Your task to perform on an android device: change notification settings in the gmail app Image 0: 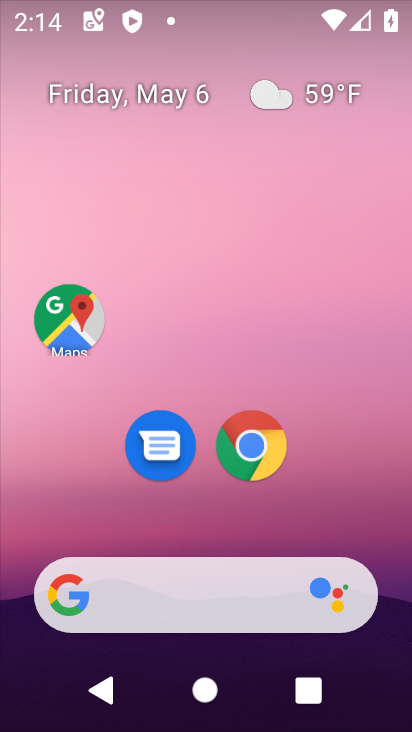
Step 0: drag from (371, 541) to (44, 170)
Your task to perform on an android device: change notification settings in the gmail app Image 1: 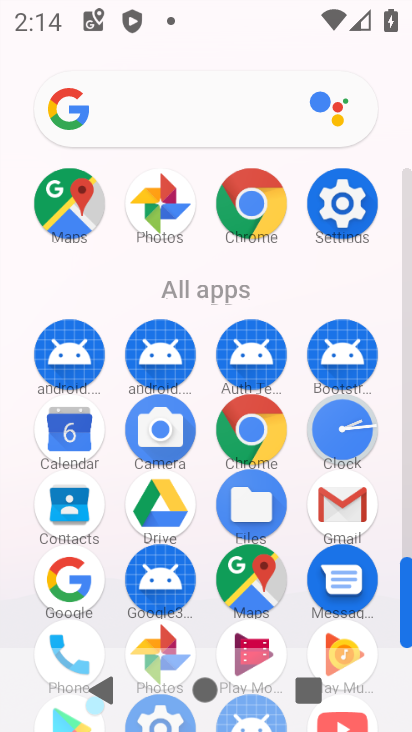
Step 1: click (340, 481)
Your task to perform on an android device: change notification settings in the gmail app Image 2: 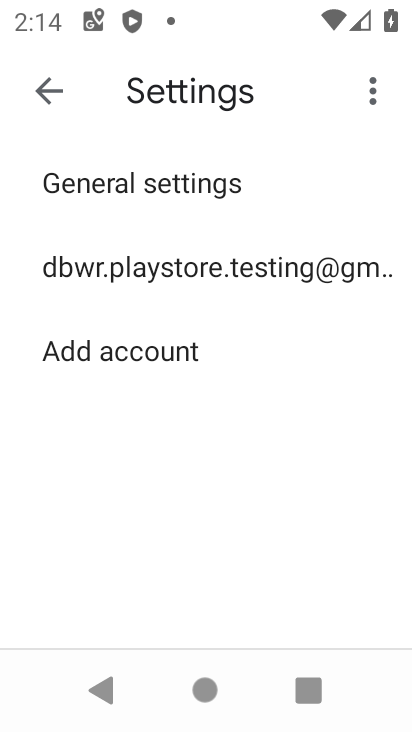
Step 2: click (137, 274)
Your task to perform on an android device: change notification settings in the gmail app Image 3: 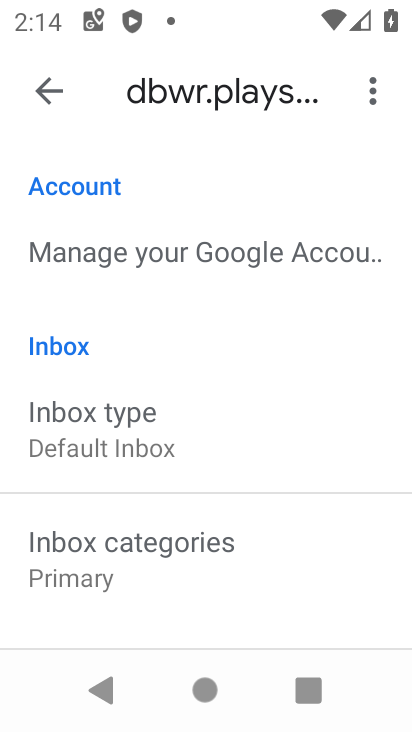
Step 3: drag from (148, 556) to (195, 117)
Your task to perform on an android device: change notification settings in the gmail app Image 4: 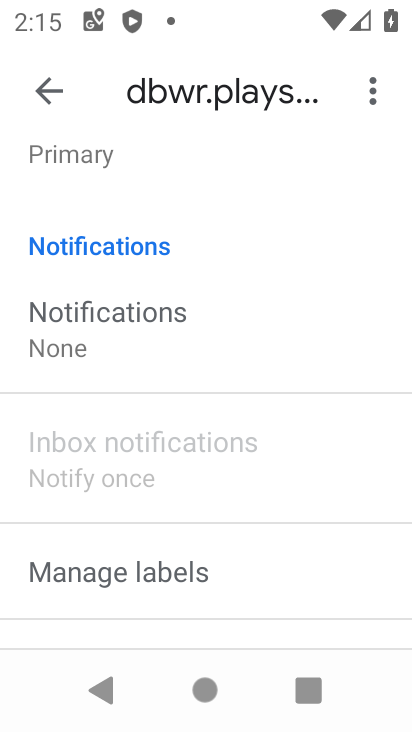
Step 4: click (128, 314)
Your task to perform on an android device: change notification settings in the gmail app Image 5: 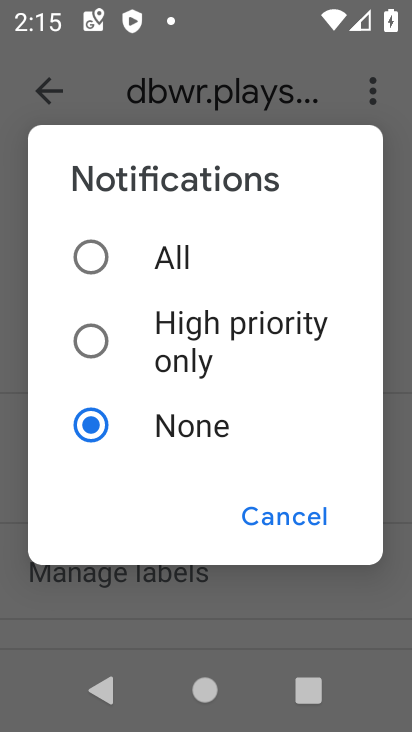
Step 5: click (87, 341)
Your task to perform on an android device: change notification settings in the gmail app Image 6: 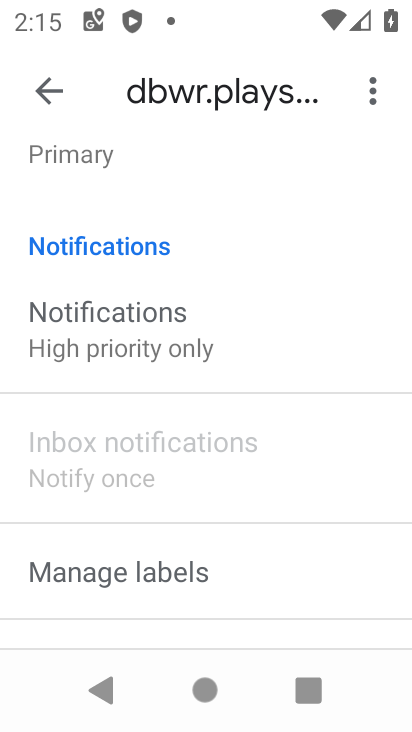
Step 6: task complete